Your task to perform on an android device: Open ESPN.com Image 0: 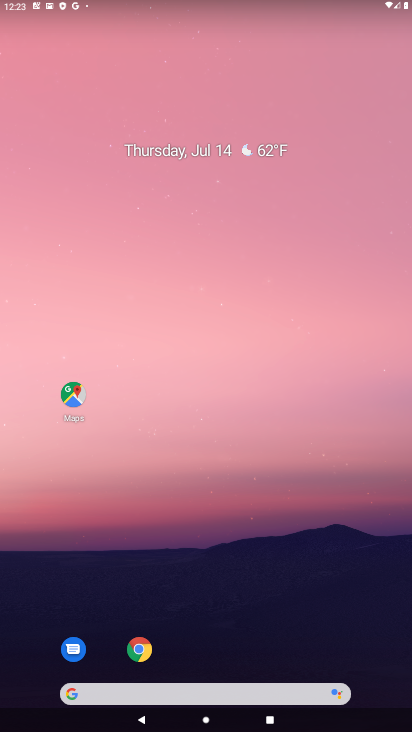
Step 0: drag from (378, 679) to (246, 63)
Your task to perform on an android device: Open ESPN.com Image 1: 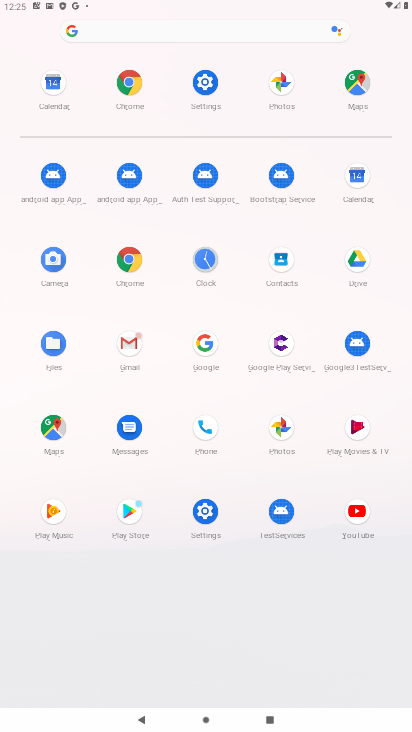
Step 1: click (208, 341)
Your task to perform on an android device: Open ESPN.com Image 2: 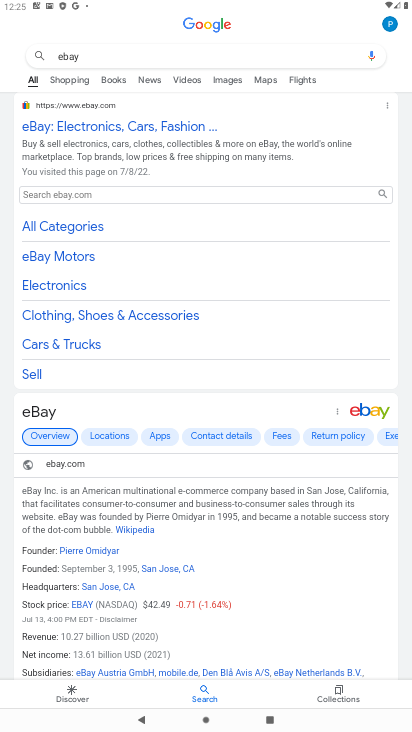
Step 2: press back button
Your task to perform on an android device: Open ESPN.com Image 3: 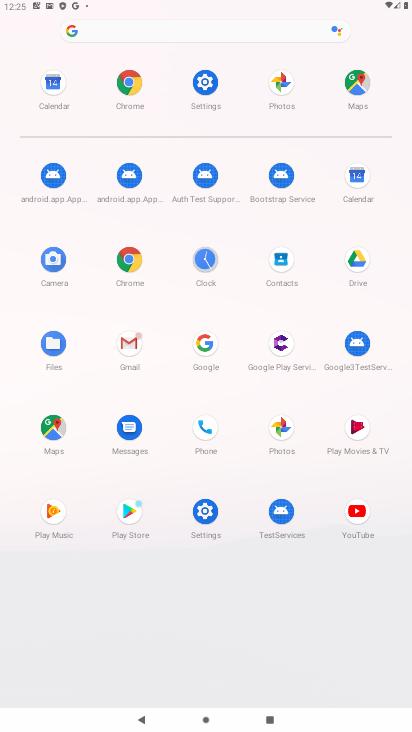
Step 3: click (215, 345)
Your task to perform on an android device: Open ESPN.com Image 4: 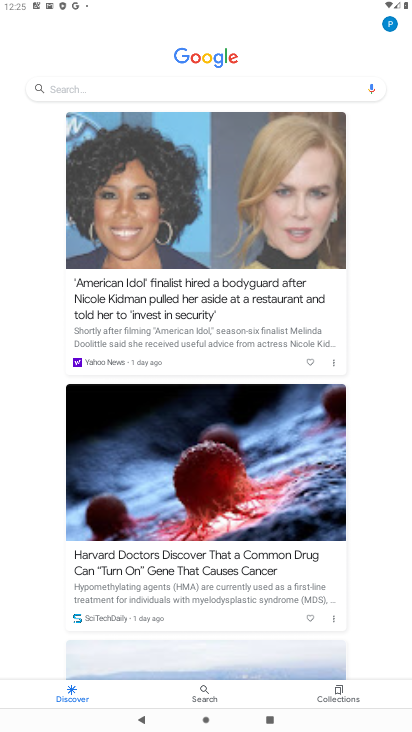
Step 4: click (177, 89)
Your task to perform on an android device: Open ESPN.com Image 5: 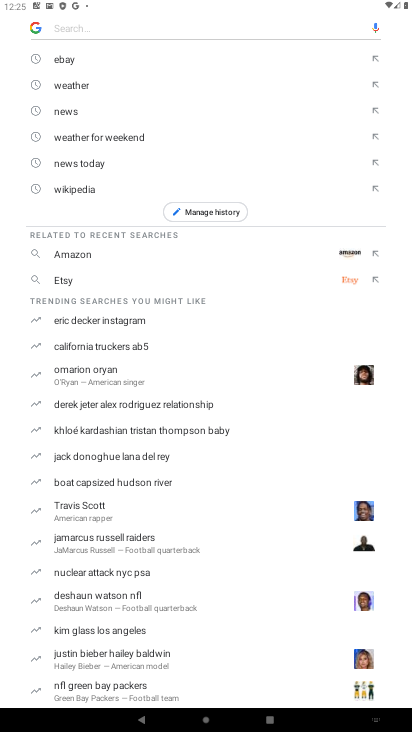
Step 5: type "espn.com"
Your task to perform on an android device: Open ESPN.com Image 6: 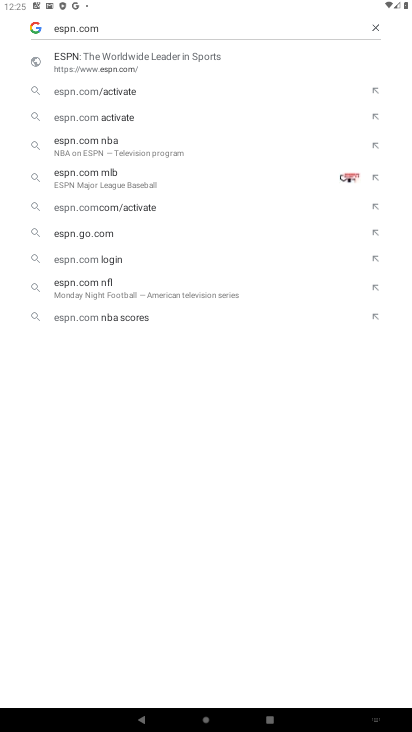
Step 6: click (84, 46)
Your task to perform on an android device: Open ESPN.com Image 7: 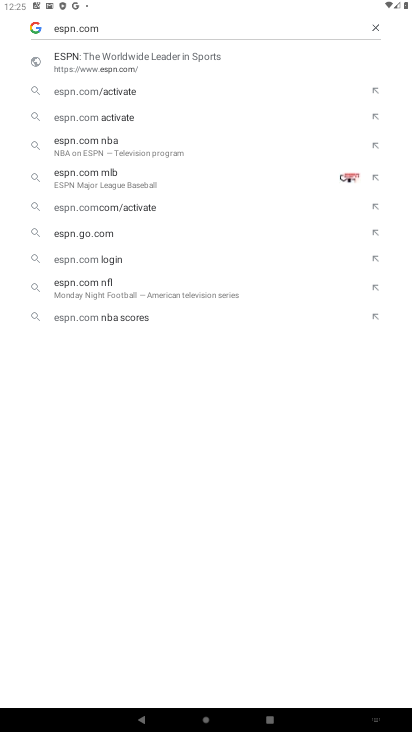
Step 7: click (140, 69)
Your task to perform on an android device: Open ESPN.com Image 8: 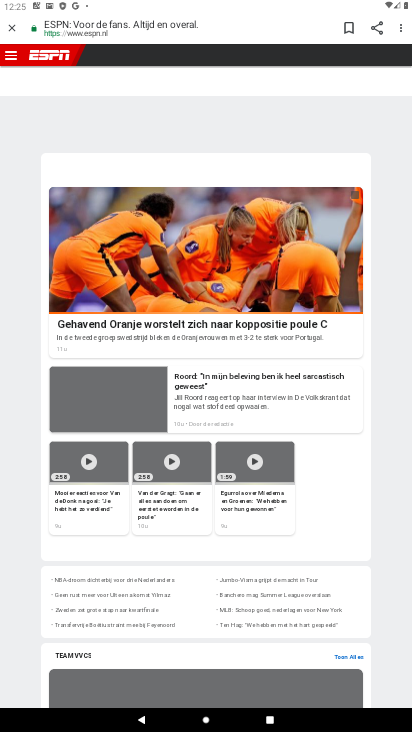
Step 8: task complete